Your task to perform on an android device: change the clock display to analog Image 0: 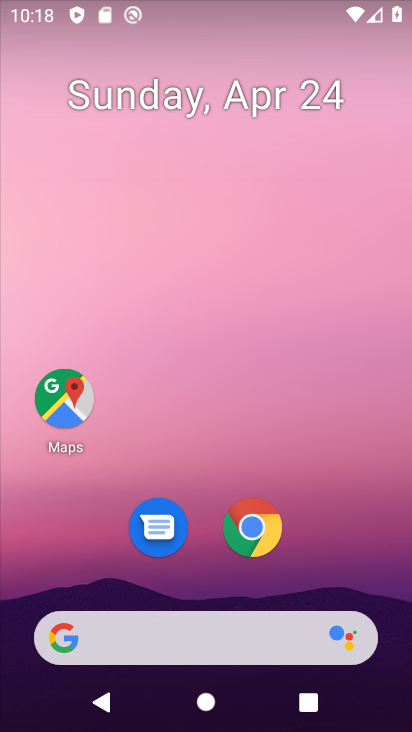
Step 0: drag from (292, 435) to (308, 66)
Your task to perform on an android device: change the clock display to analog Image 1: 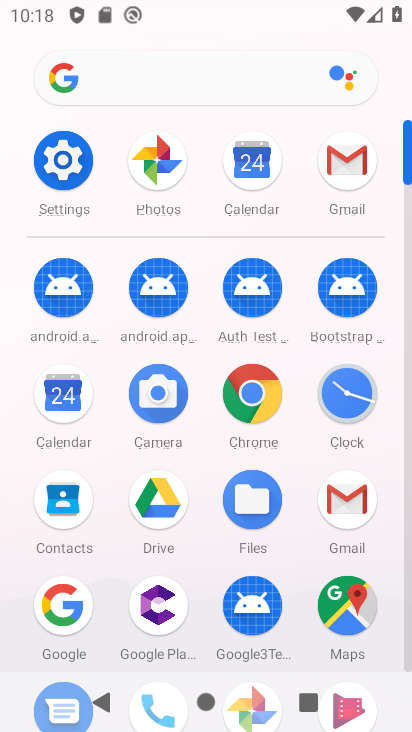
Step 1: click (328, 386)
Your task to perform on an android device: change the clock display to analog Image 2: 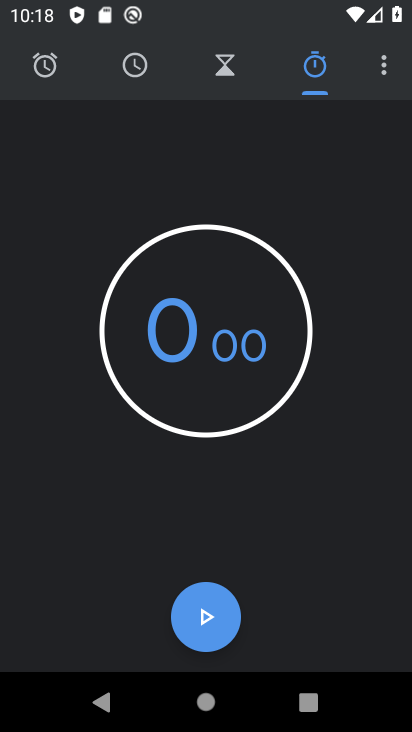
Step 2: click (379, 62)
Your task to perform on an android device: change the clock display to analog Image 3: 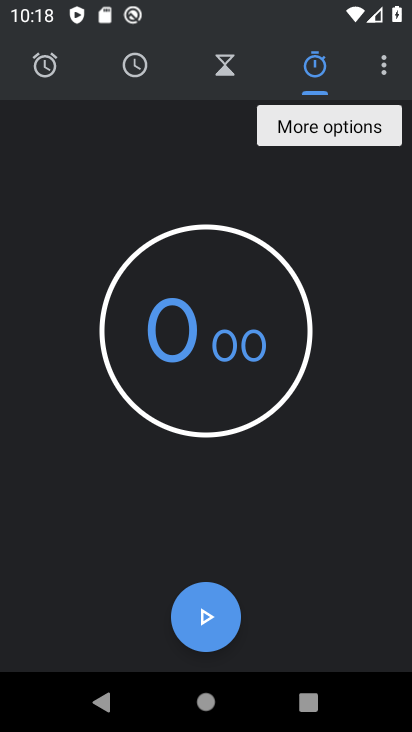
Step 3: click (317, 127)
Your task to perform on an android device: change the clock display to analog Image 4: 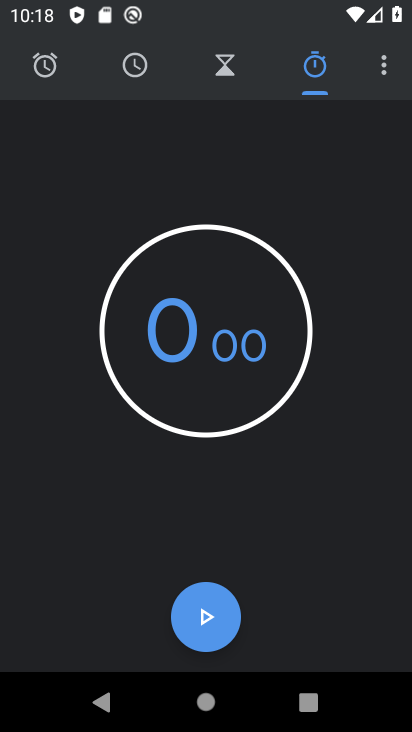
Step 4: click (381, 65)
Your task to perform on an android device: change the clock display to analog Image 5: 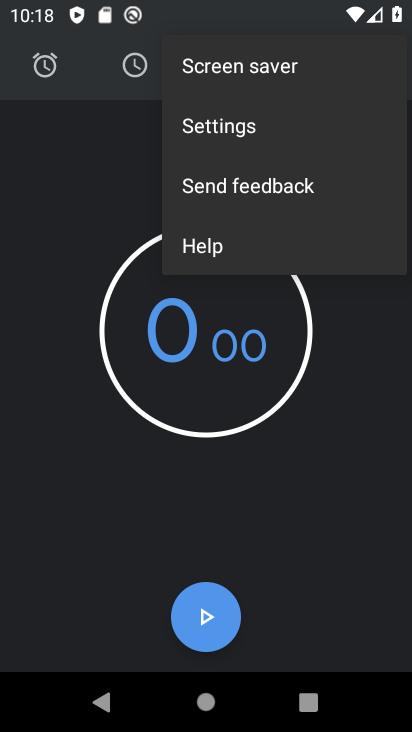
Step 5: click (227, 122)
Your task to perform on an android device: change the clock display to analog Image 6: 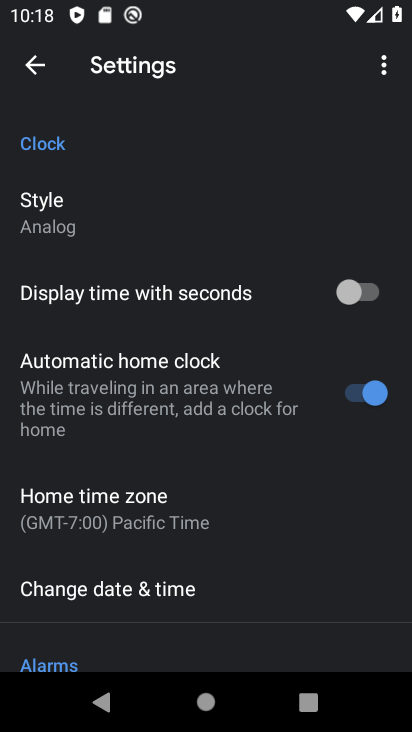
Step 6: click (68, 210)
Your task to perform on an android device: change the clock display to analog Image 7: 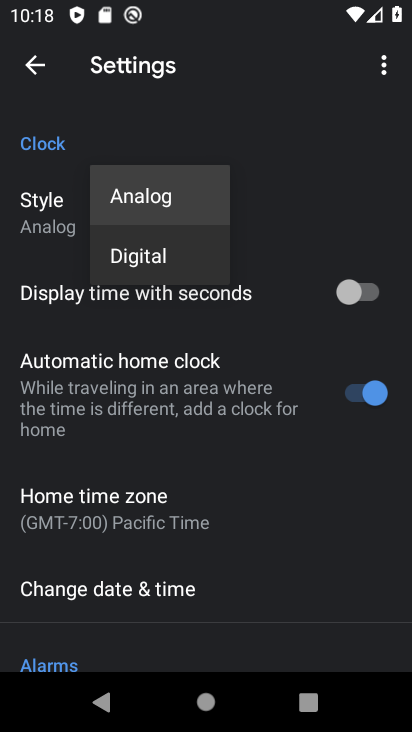
Step 7: click (161, 194)
Your task to perform on an android device: change the clock display to analog Image 8: 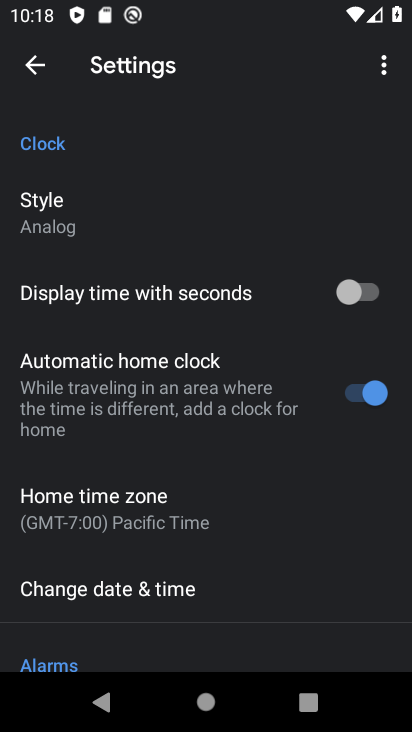
Step 8: task complete